Your task to perform on an android device: turn on location history Image 0: 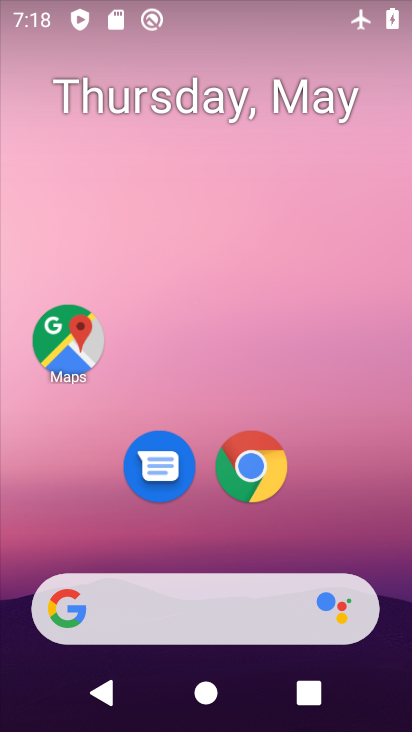
Step 0: click (55, 346)
Your task to perform on an android device: turn on location history Image 1: 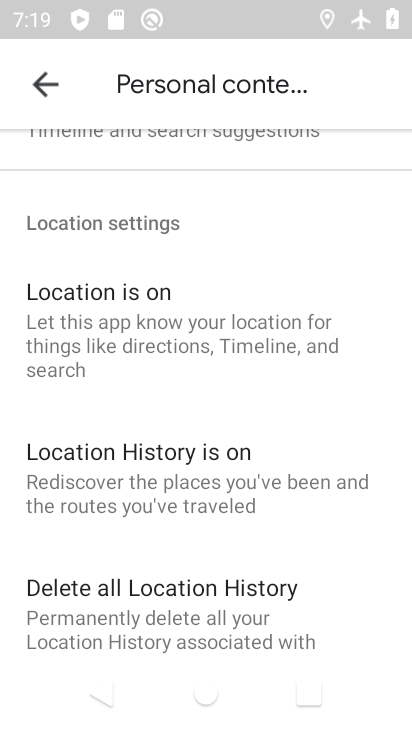
Step 1: click (141, 452)
Your task to perform on an android device: turn on location history Image 2: 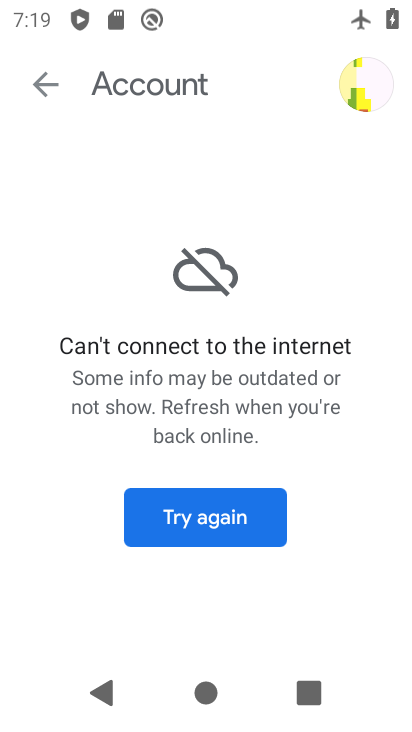
Step 2: task complete